Your task to perform on an android device: show emergency info Image 0: 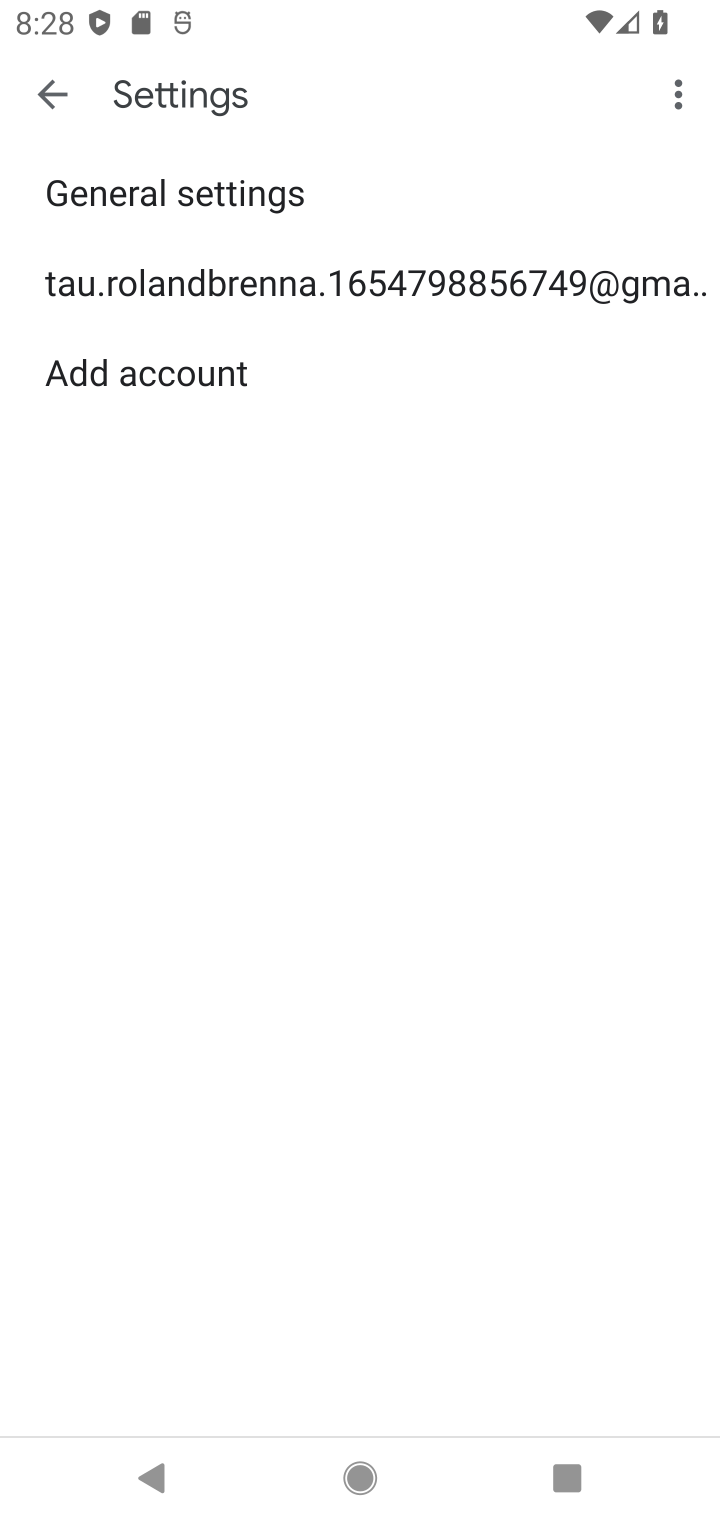
Step 0: press home button
Your task to perform on an android device: show emergency info Image 1: 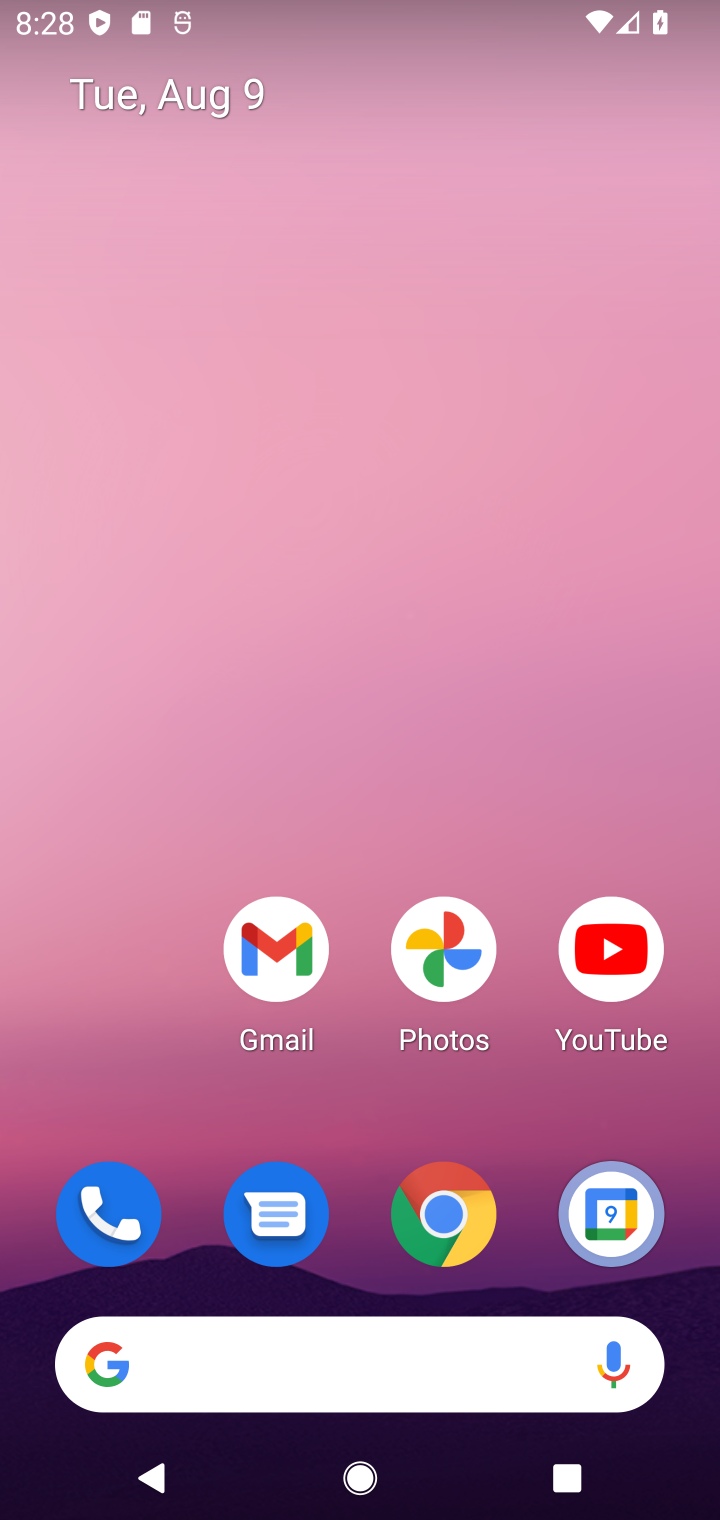
Step 1: drag from (52, 1409) to (323, 607)
Your task to perform on an android device: show emergency info Image 2: 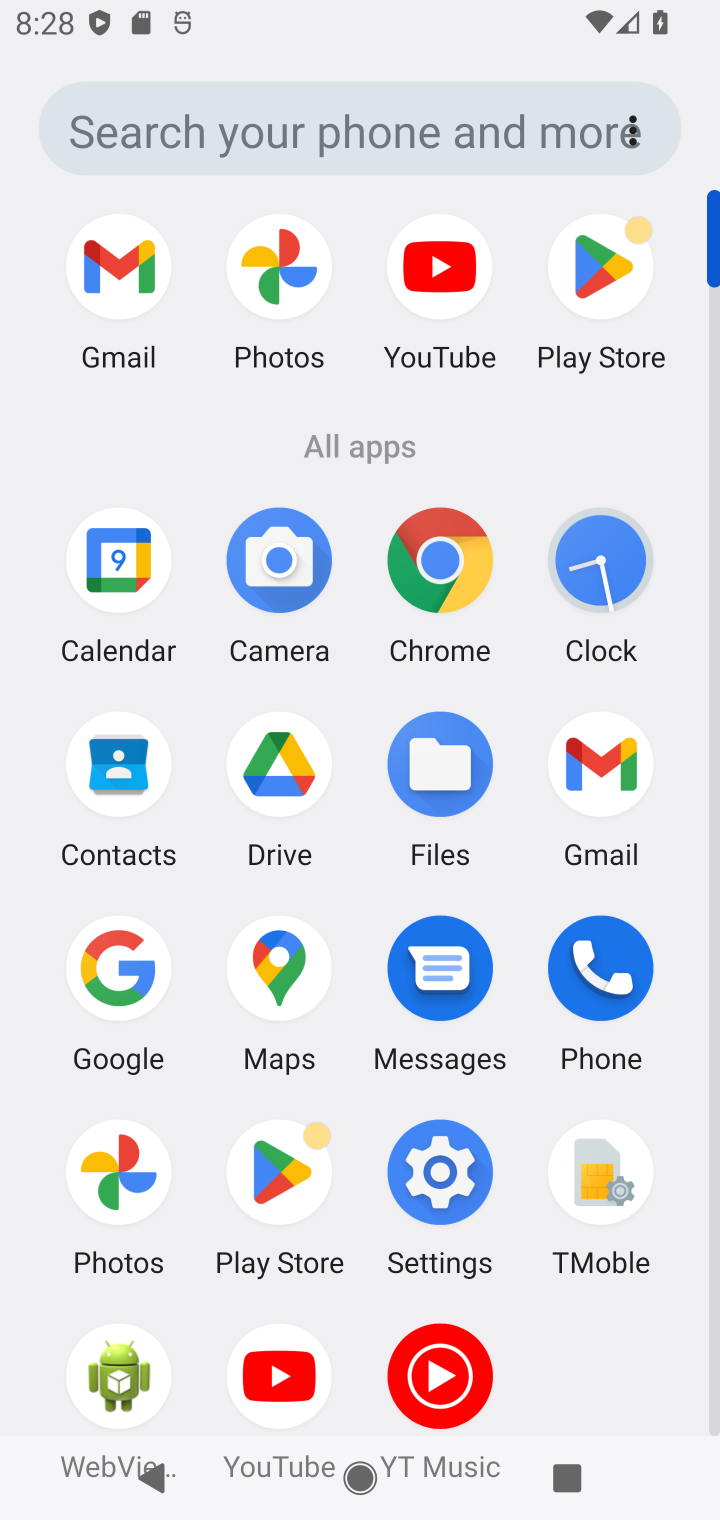
Step 2: click (420, 1162)
Your task to perform on an android device: show emergency info Image 3: 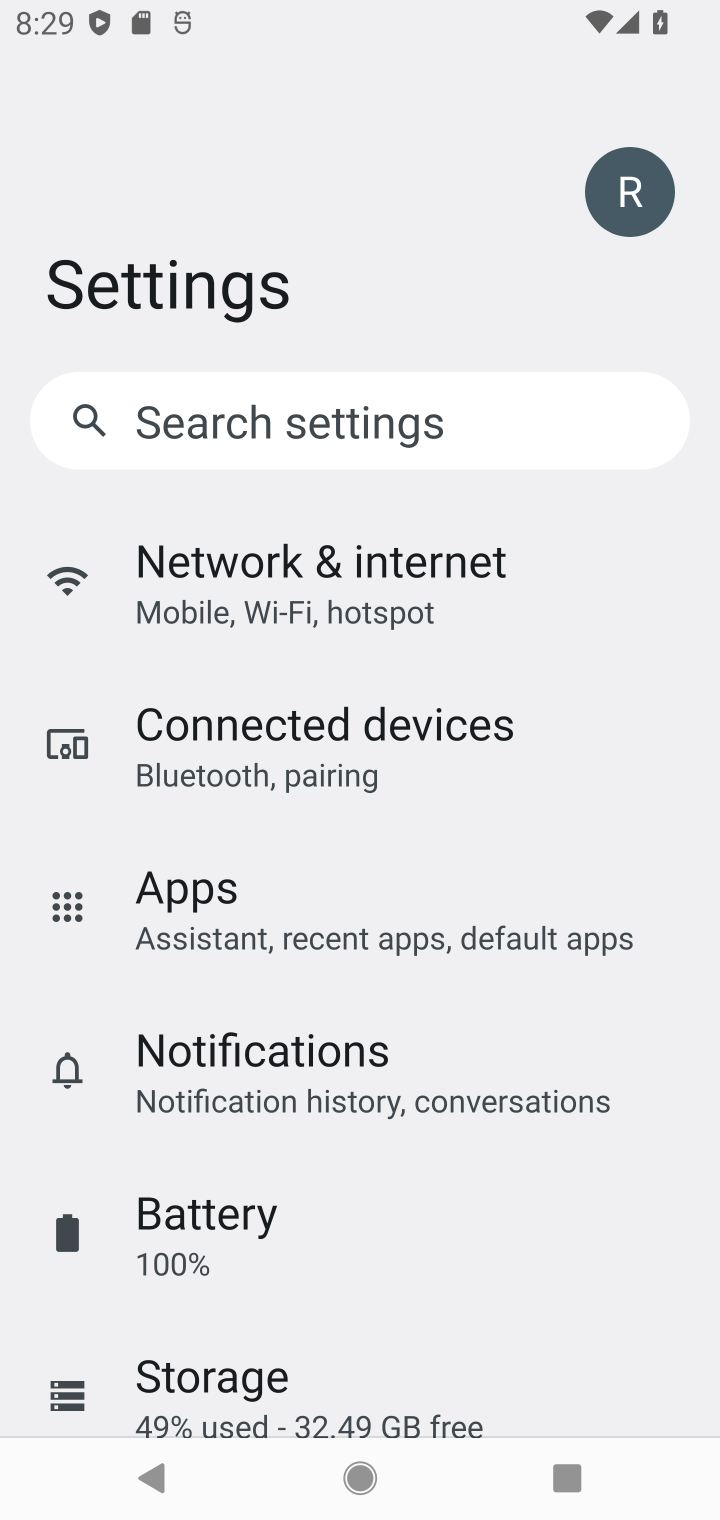
Step 3: click (423, 1053)
Your task to perform on an android device: show emergency info Image 4: 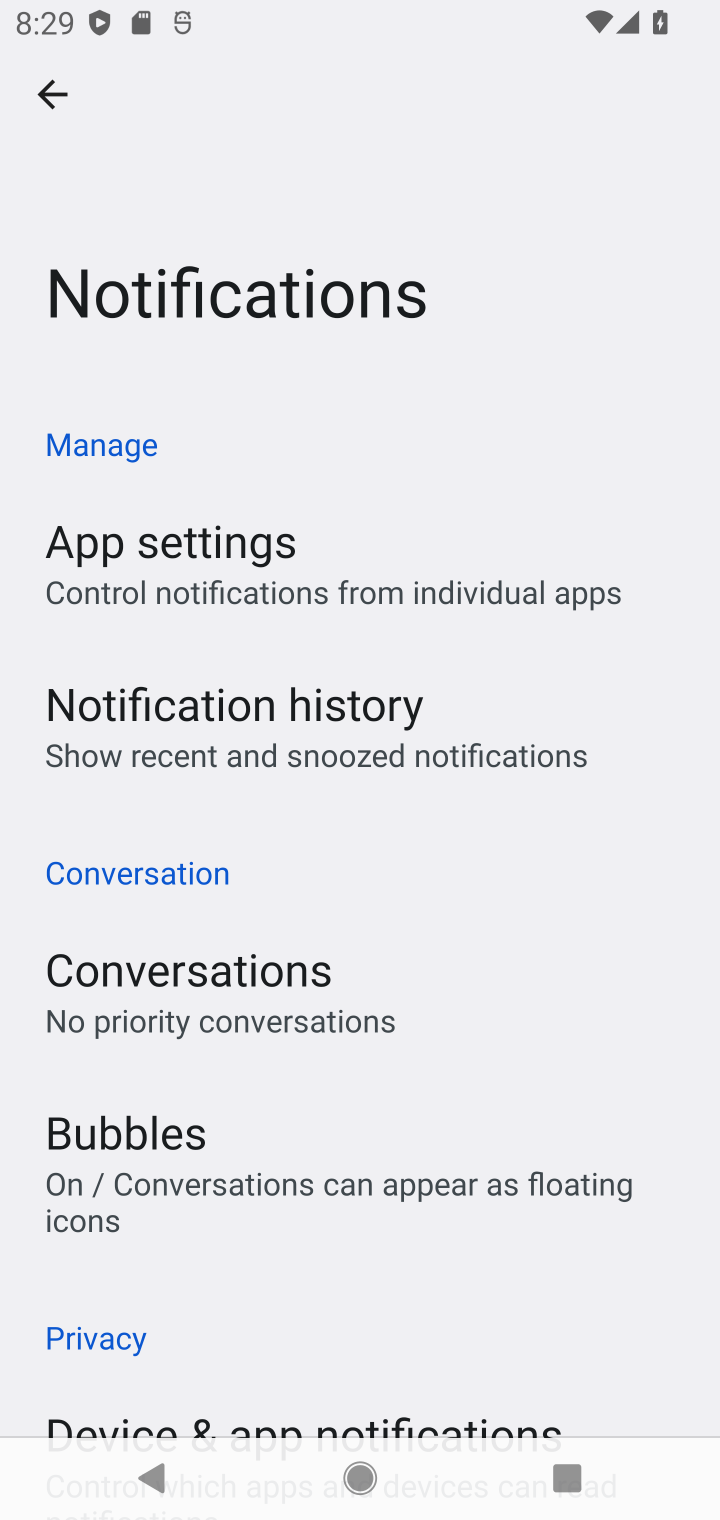
Step 4: task complete